Your task to perform on an android device: Go to Google maps Image 0: 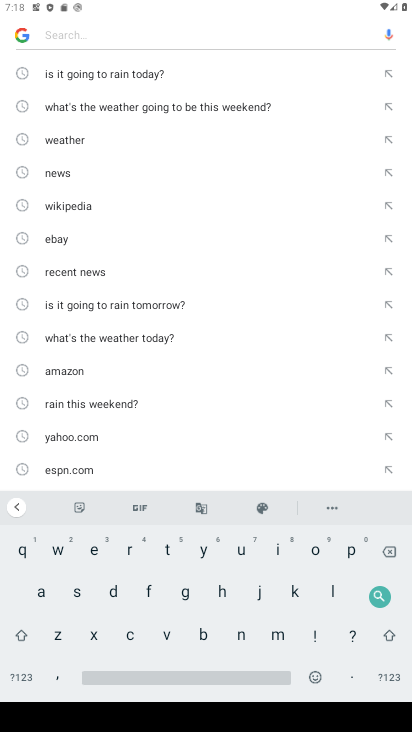
Step 0: press home button
Your task to perform on an android device: Go to Google maps Image 1: 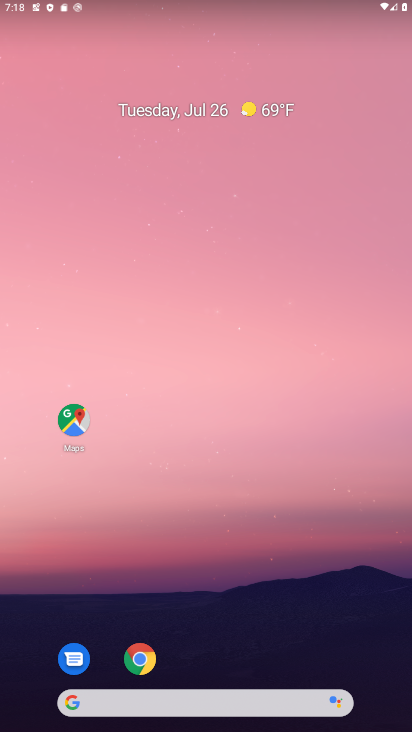
Step 1: click (77, 420)
Your task to perform on an android device: Go to Google maps Image 2: 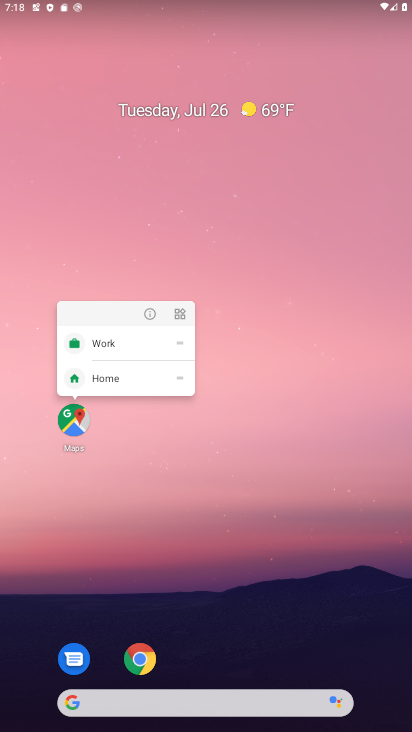
Step 2: click (73, 428)
Your task to perform on an android device: Go to Google maps Image 3: 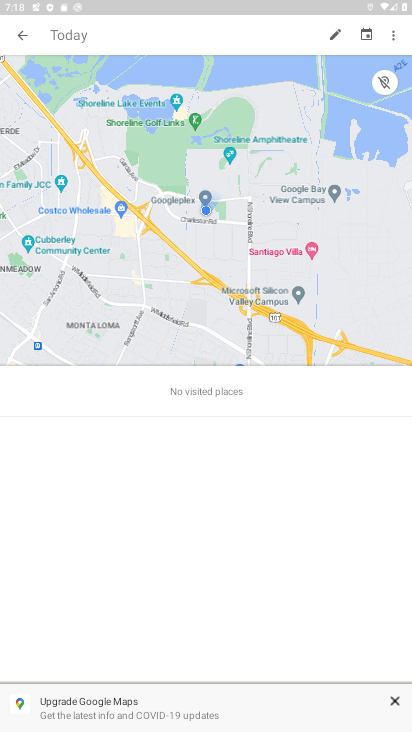
Step 3: click (18, 33)
Your task to perform on an android device: Go to Google maps Image 4: 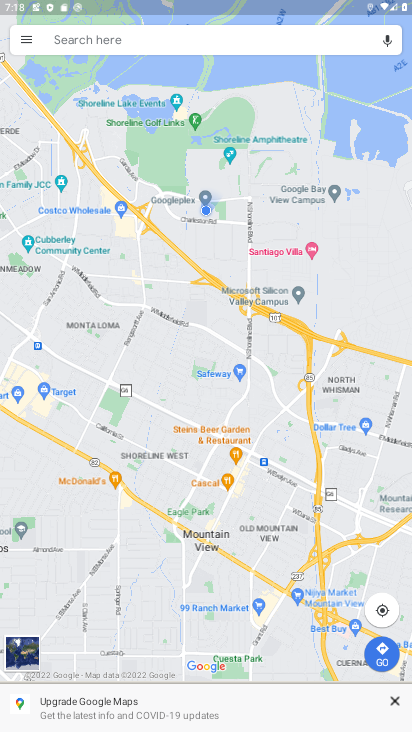
Step 4: click (378, 605)
Your task to perform on an android device: Go to Google maps Image 5: 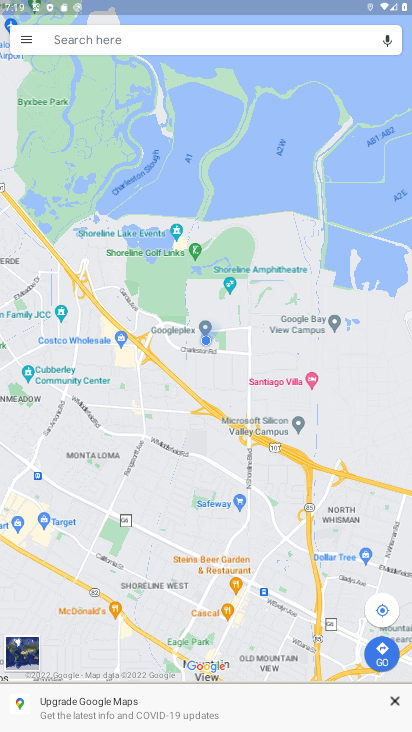
Step 5: click (375, 606)
Your task to perform on an android device: Go to Google maps Image 6: 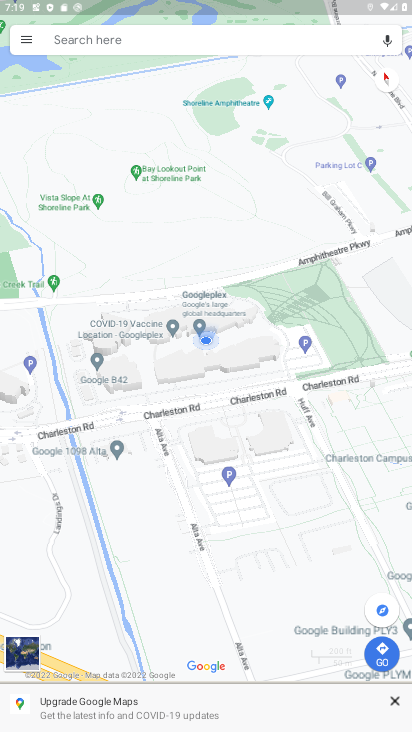
Step 6: task complete